Your task to perform on an android device: check android version Image 0: 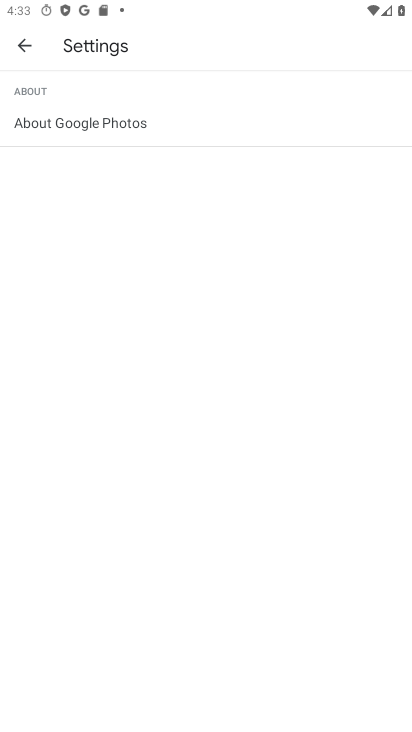
Step 0: press home button
Your task to perform on an android device: check android version Image 1: 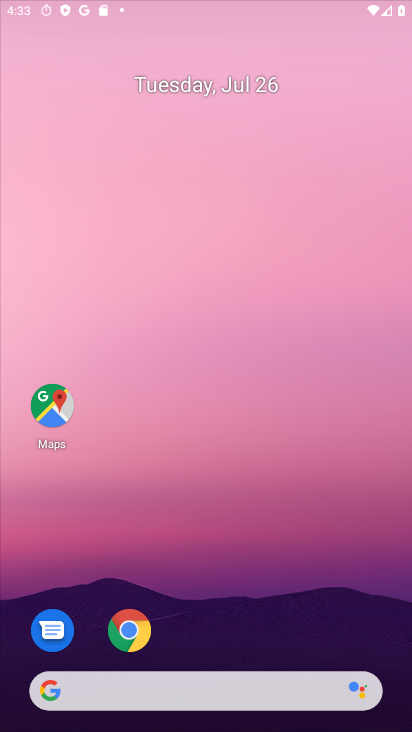
Step 1: drag from (288, 612) to (177, 70)
Your task to perform on an android device: check android version Image 2: 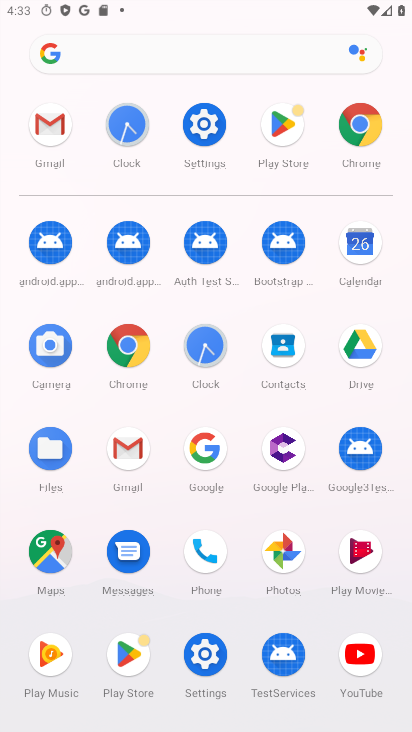
Step 2: click (194, 127)
Your task to perform on an android device: check android version Image 3: 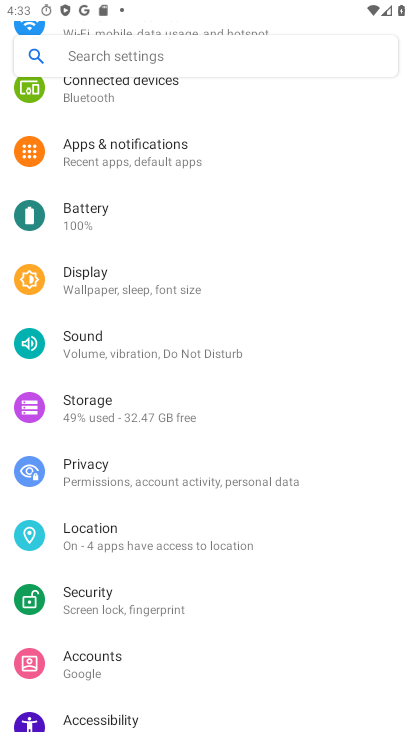
Step 3: drag from (187, 591) to (203, 6)
Your task to perform on an android device: check android version Image 4: 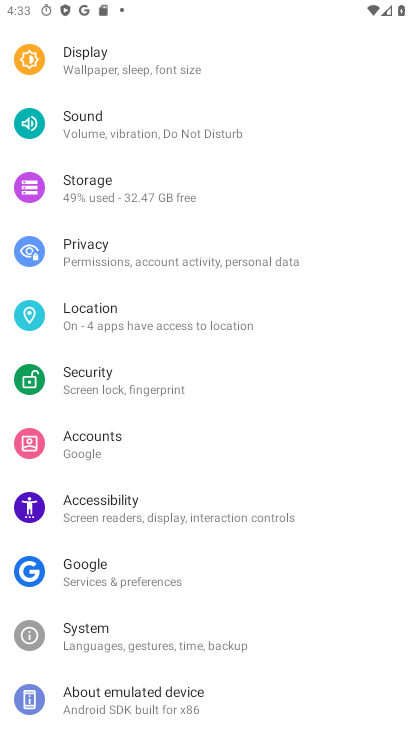
Step 4: click (153, 692)
Your task to perform on an android device: check android version Image 5: 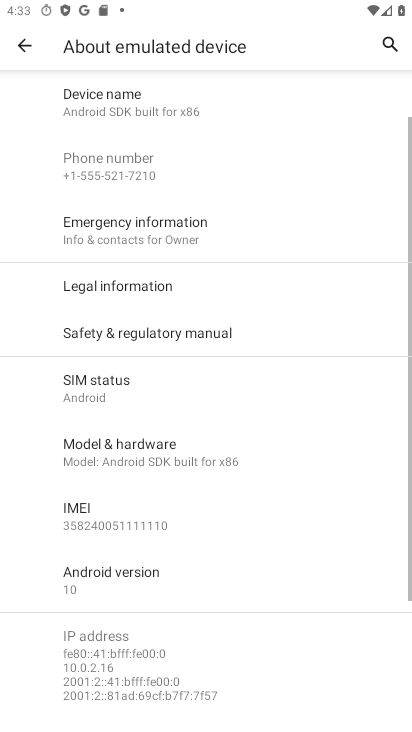
Step 5: click (112, 571)
Your task to perform on an android device: check android version Image 6: 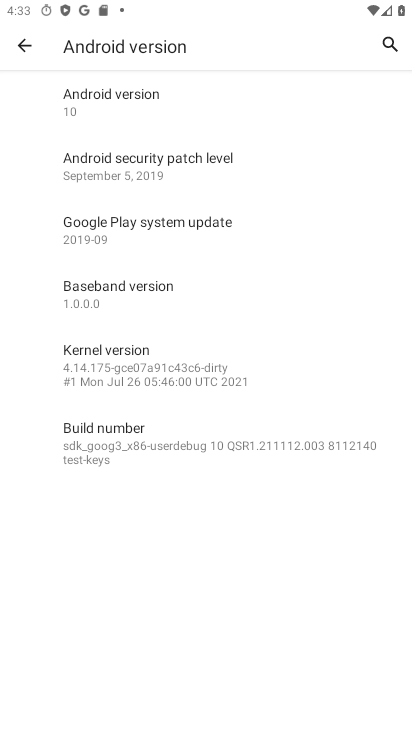
Step 6: task complete